Your task to perform on an android device: Open display settings Image 0: 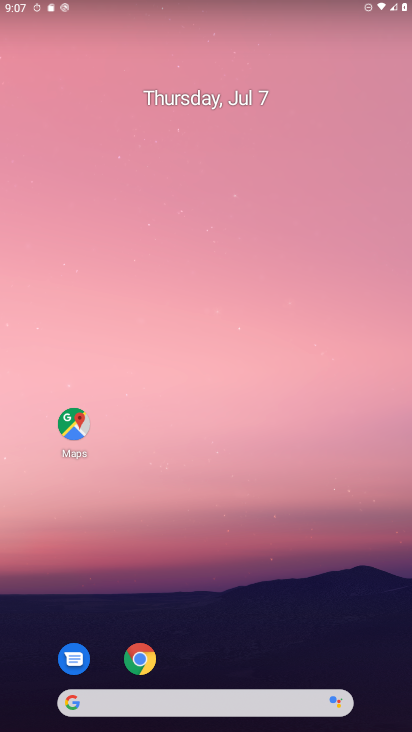
Step 0: drag from (377, 690) to (263, 29)
Your task to perform on an android device: Open display settings Image 1: 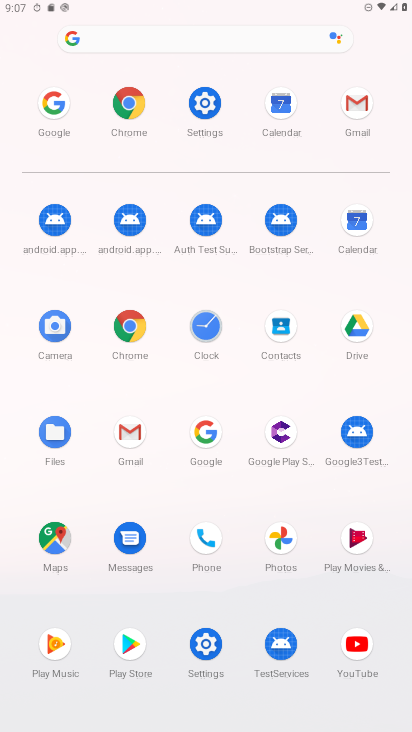
Step 1: click (204, 636)
Your task to perform on an android device: Open display settings Image 2: 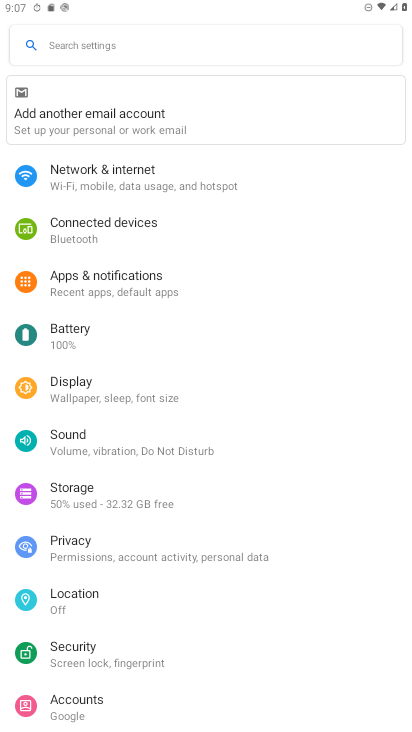
Step 2: click (81, 368)
Your task to perform on an android device: Open display settings Image 3: 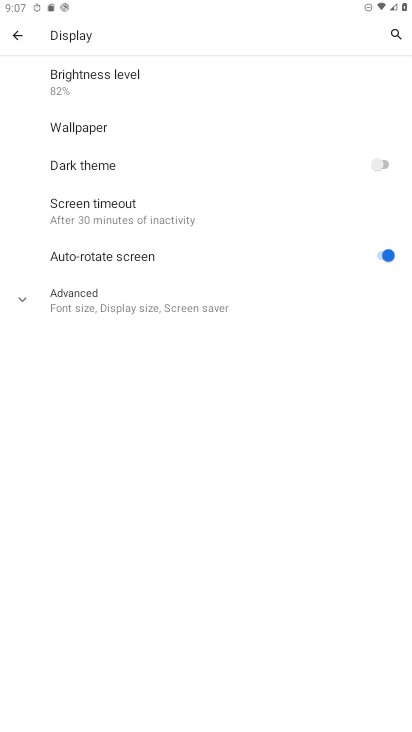
Step 3: task complete